Your task to perform on an android device: toggle data saver in the chrome app Image 0: 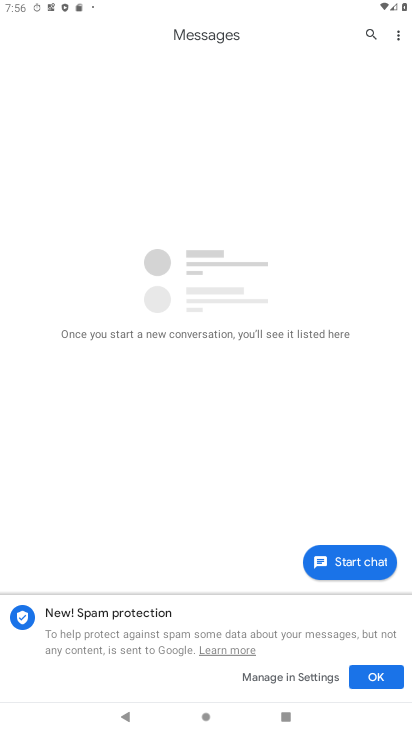
Step 0: press home button
Your task to perform on an android device: toggle data saver in the chrome app Image 1: 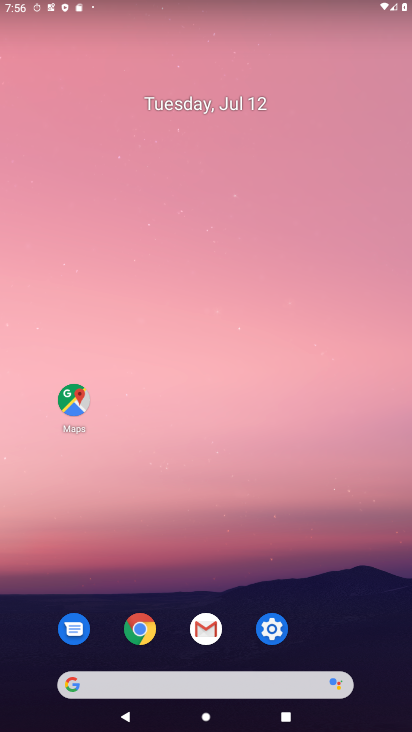
Step 1: click (141, 618)
Your task to perform on an android device: toggle data saver in the chrome app Image 2: 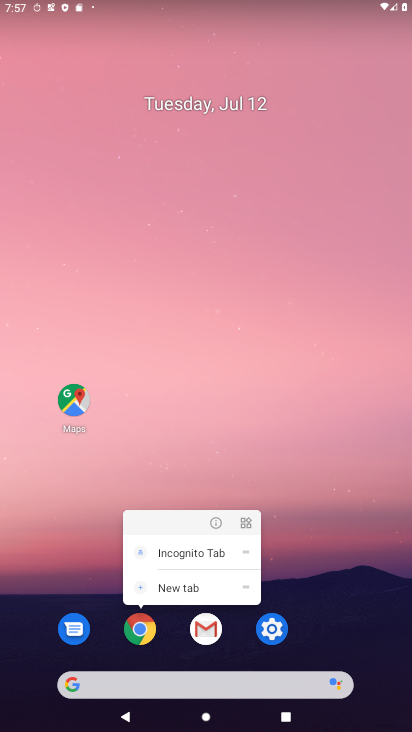
Step 2: click (132, 648)
Your task to perform on an android device: toggle data saver in the chrome app Image 3: 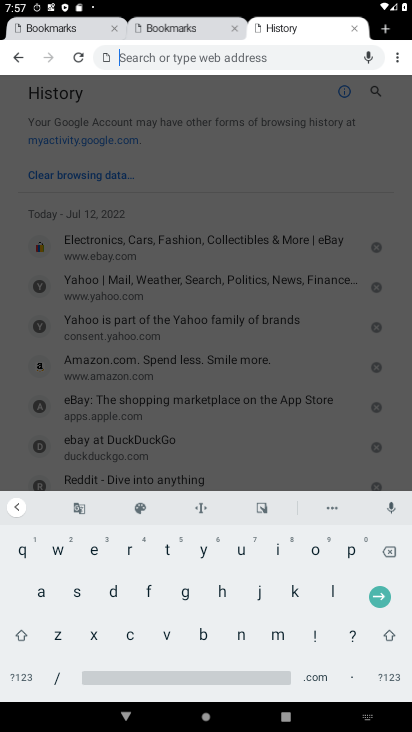
Step 3: click (397, 58)
Your task to perform on an android device: toggle data saver in the chrome app Image 4: 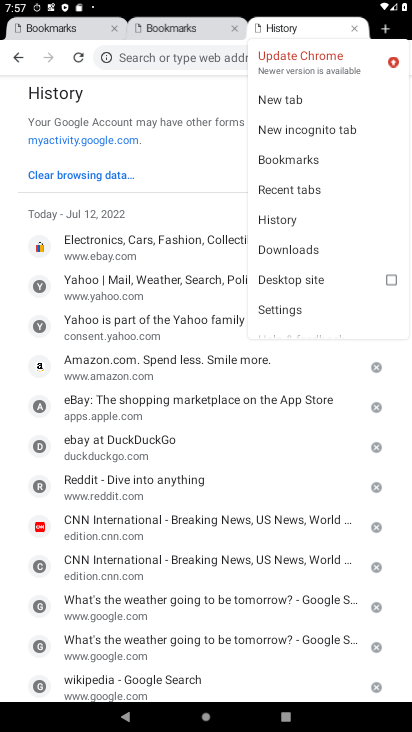
Step 4: click (267, 313)
Your task to perform on an android device: toggle data saver in the chrome app Image 5: 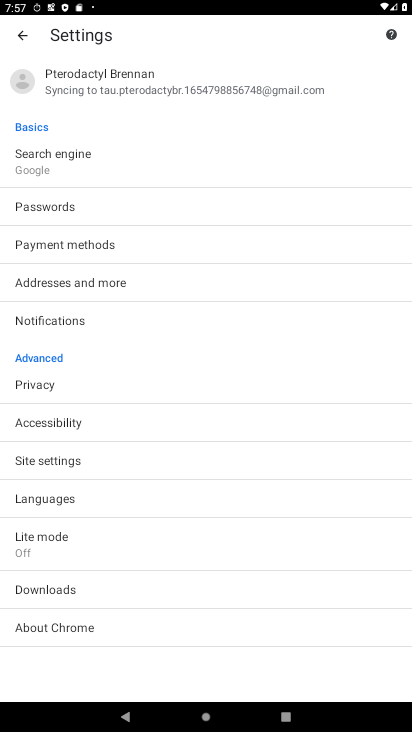
Step 5: click (48, 543)
Your task to perform on an android device: toggle data saver in the chrome app Image 6: 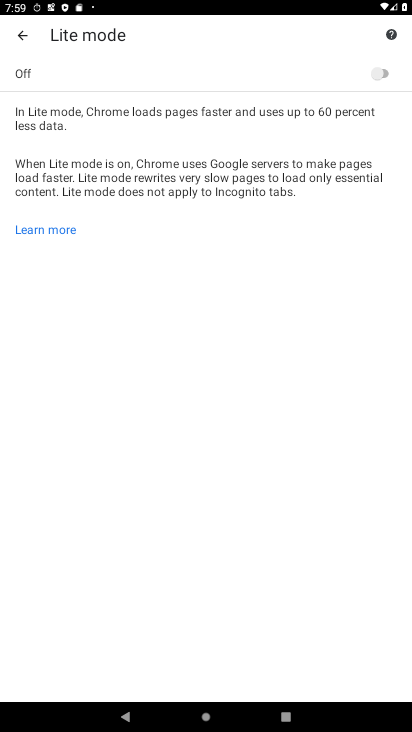
Step 6: task complete